Your task to perform on an android device: open chrome and create a bookmark for the current page Image 0: 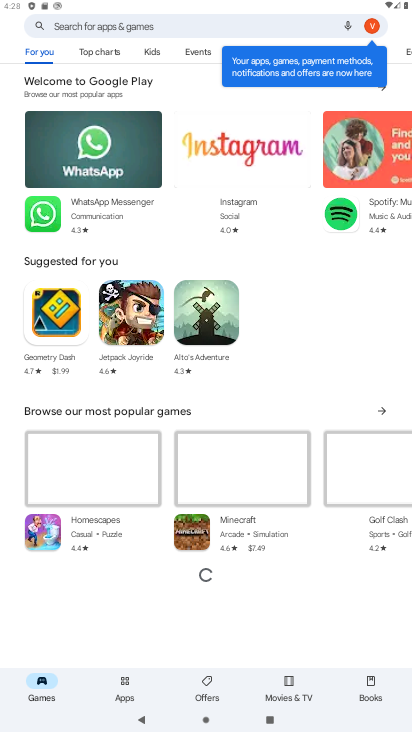
Step 0: press home button
Your task to perform on an android device: open chrome and create a bookmark for the current page Image 1: 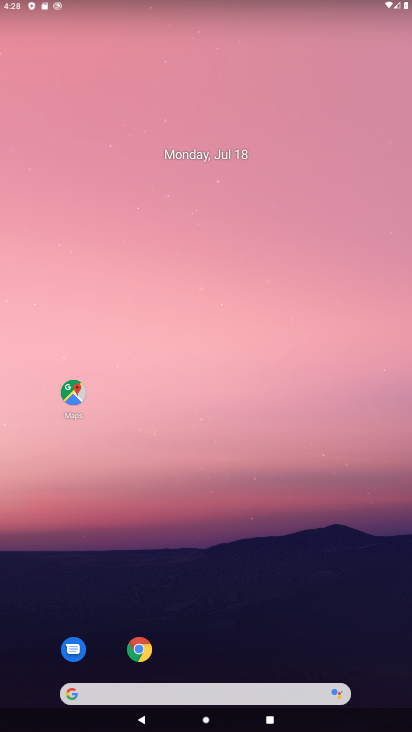
Step 1: click (146, 655)
Your task to perform on an android device: open chrome and create a bookmark for the current page Image 2: 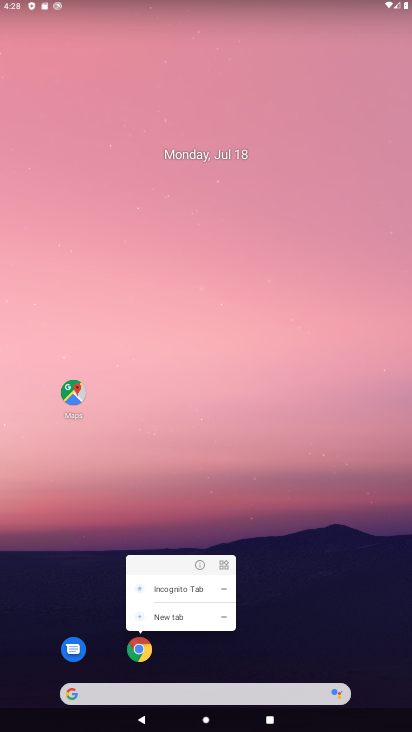
Step 2: click (138, 661)
Your task to perform on an android device: open chrome and create a bookmark for the current page Image 3: 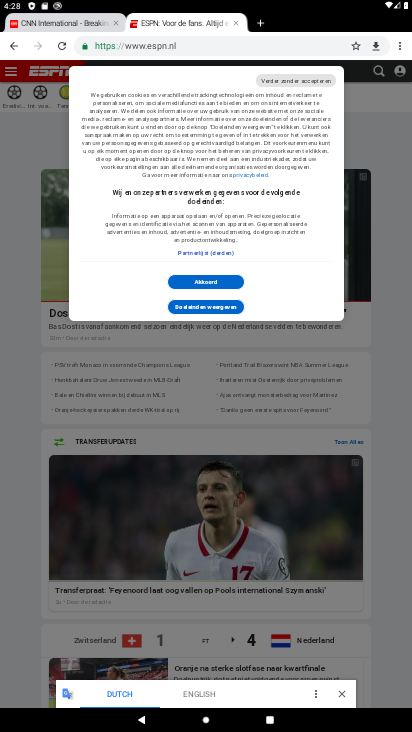
Step 3: click (351, 46)
Your task to perform on an android device: open chrome and create a bookmark for the current page Image 4: 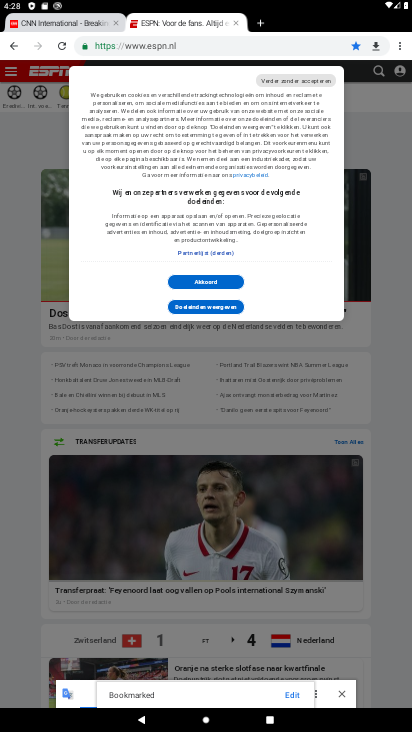
Step 4: task complete